Your task to perform on an android device: change the clock style Image 0: 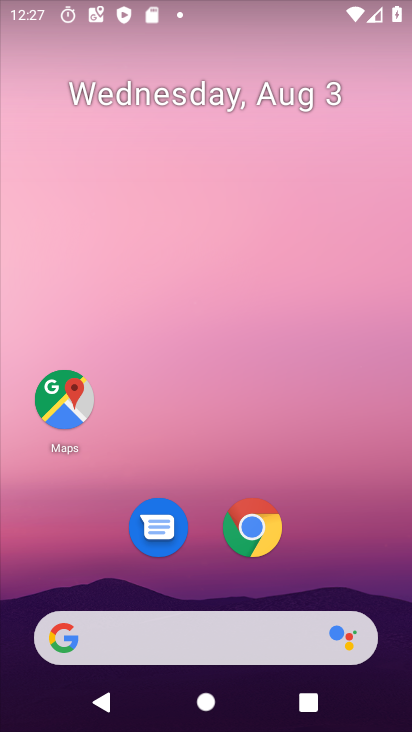
Step 0: drag from (191, 591) to (217, 90)
Your task to perform on an android device: change the clock style Image 1: 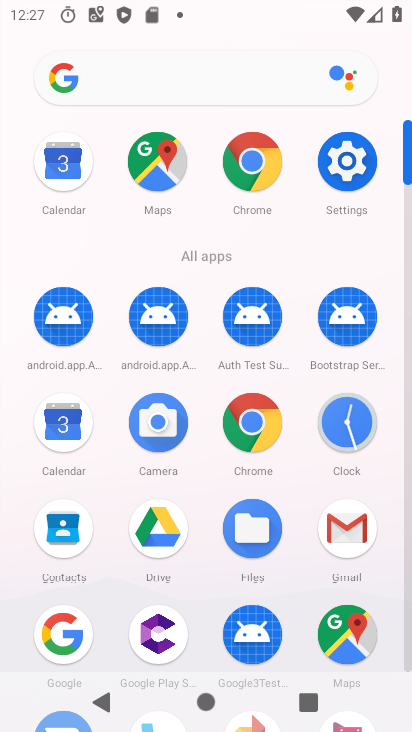
Step 1: click (352, 443)
Your task to perform on an android device: change the clock style Image 2: 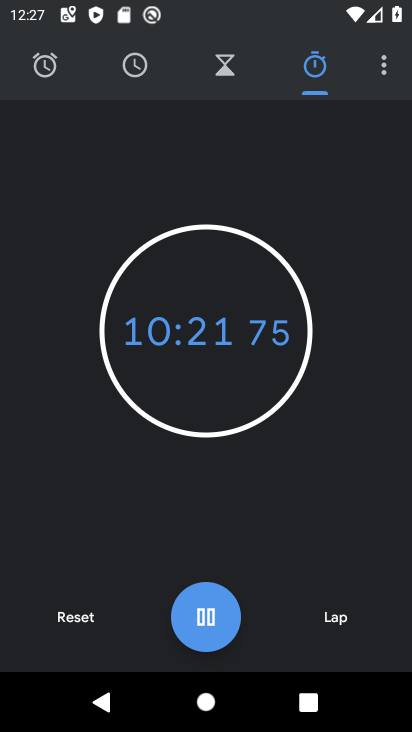
Step 2: click (77, 627)
Your task to perform on an android device: change the clock style Image 3: 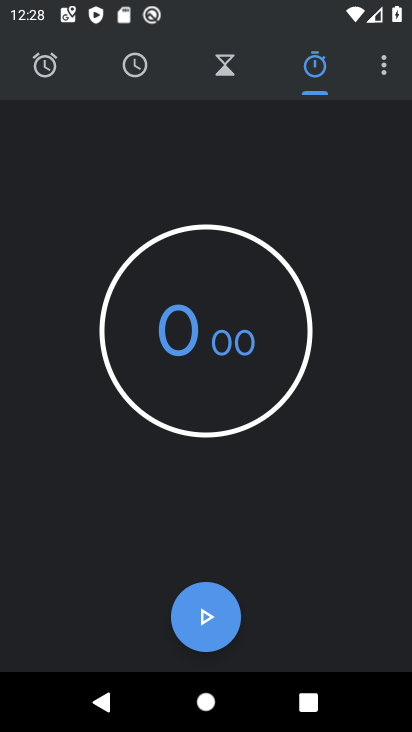
Step 3: click (384, 78)
Your task to perform on an android device: change the clock style Image 4: 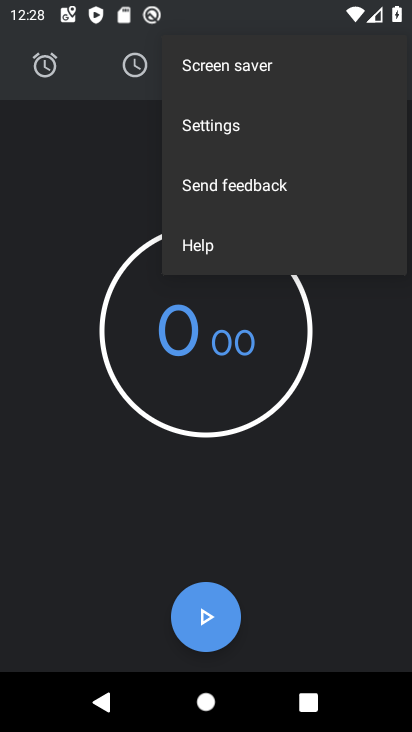
Step 4: click (217, 139)
Your task to perform on an android device: change the clock style Image 5: 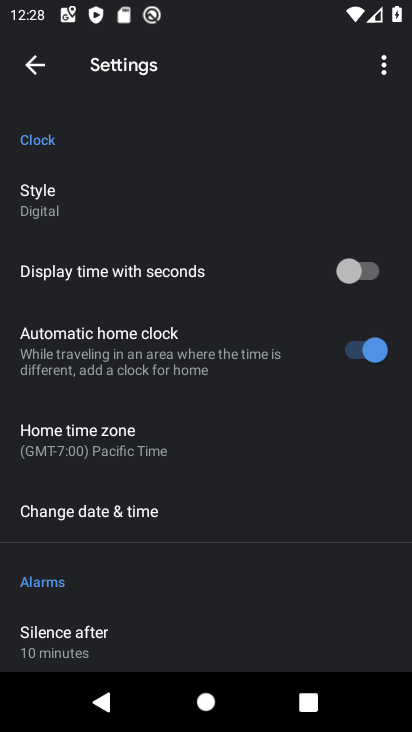
Step 5: click (51, 214)
Your task to perform on an android device: change the clock style Image 6: 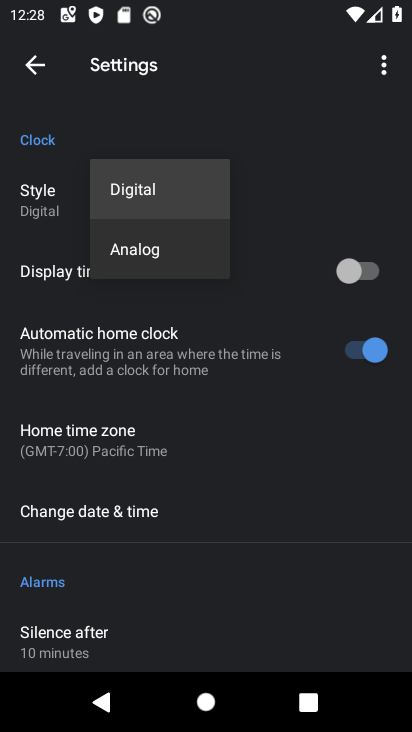
Step 6: click (155, 261)
Your task to perform on an android device: change the clock style Image 7: 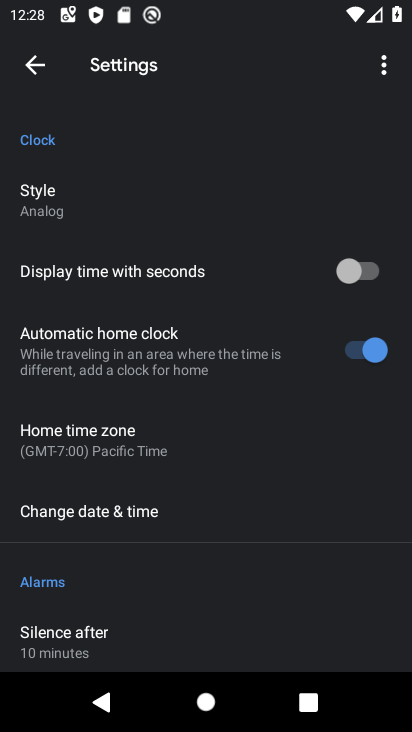
Step 7: task complete